Your task to perform on an android device: check out phone information Image 0: 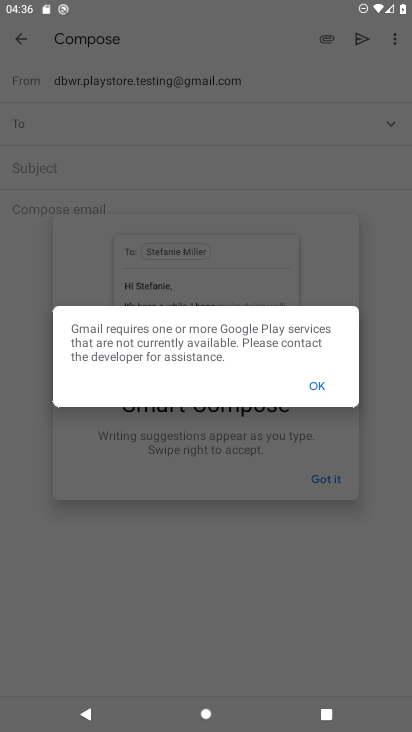
Step 0: press home button
Your task to perform on an android device: check out phone information Image 1: 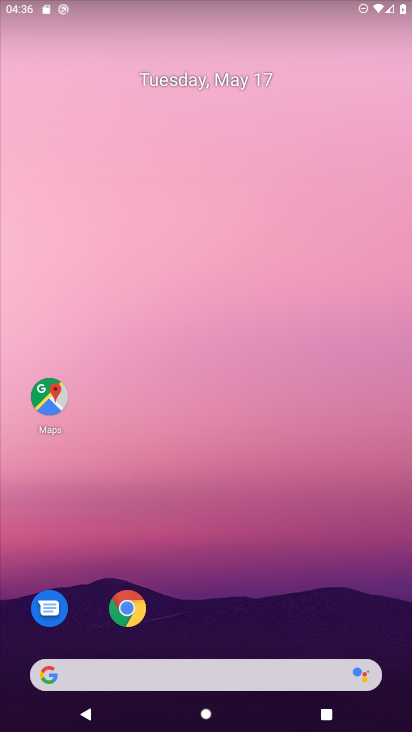
Step 1: drag from (159, 653) to (206, 287)
Your task to perform on an android device: check out phone information Image 2: 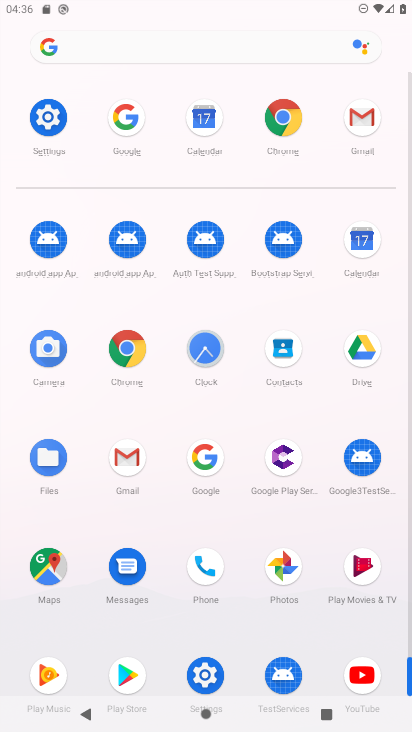
Step 2: click (211, 562)
Your task to perform on an android device: check out phone information Image 3: 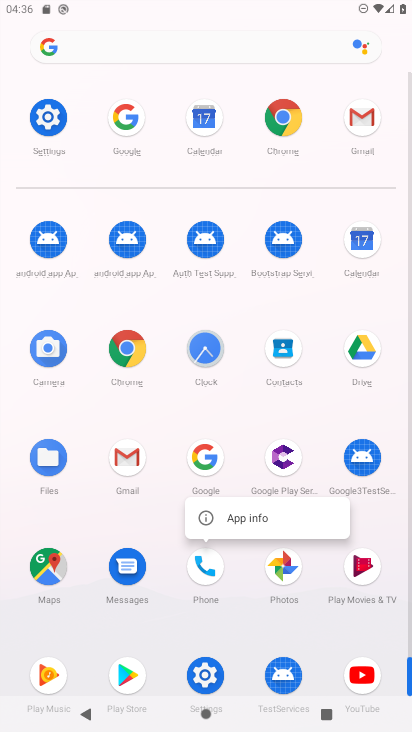
Step 3: click (244, 512)
Your task to perform on an android device: check out phone information Image 4: 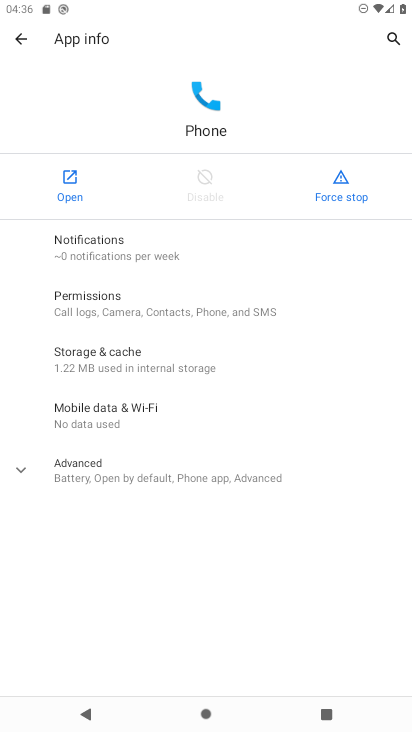
Step 4: click (114, 465)
Your task to perform on an android device: check out phone information Image 5: 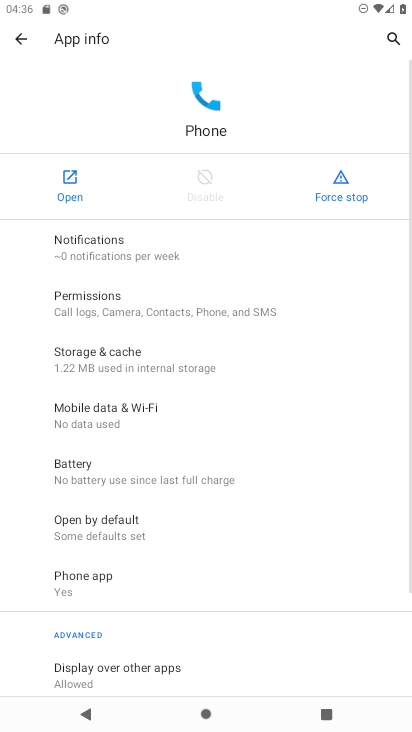
Step 5: task complete